Your task to perform on an android device: change alarm snooze length Image 0: 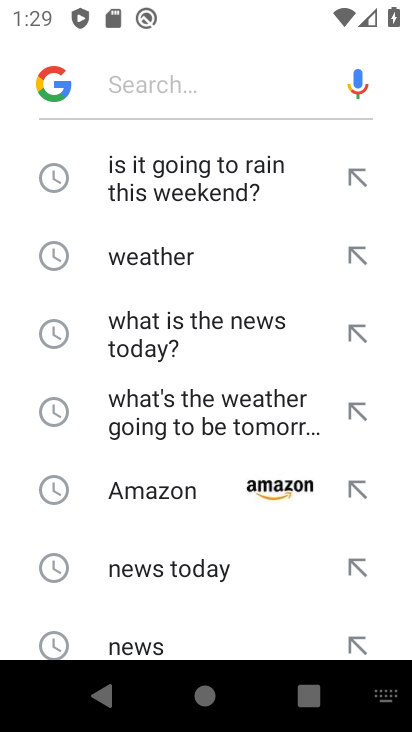
Step 0: press home button
Your task to perform on an android device: change alarm snooze length Image 1: 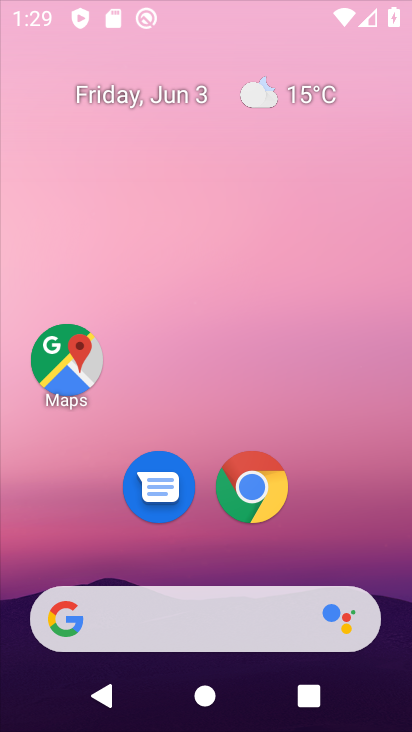
Step 1: drag from (333, 436) to (93, 36)
Your task to perform on an android device: change alarm snooze length Image 2: 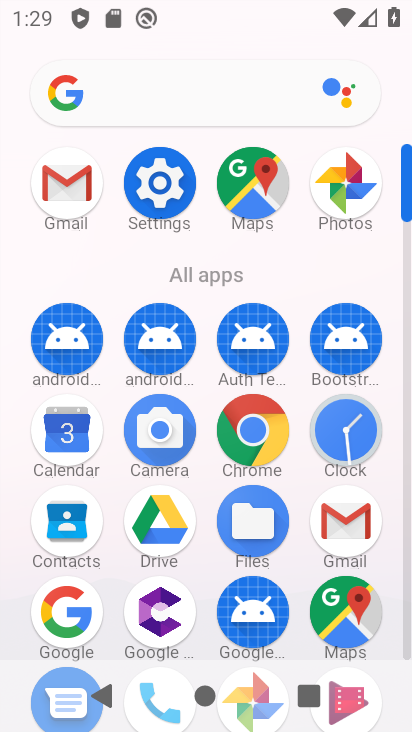
Step 2: click (361, 435)
Your task to perform on an android device: change alarm snooze length Image 3: 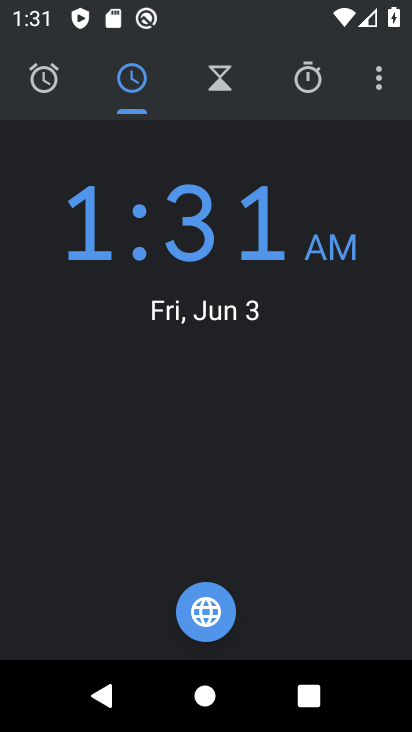
Step 3: click (379, 72)
Your task to perform on an android device: change alarm snooze length Image 4: 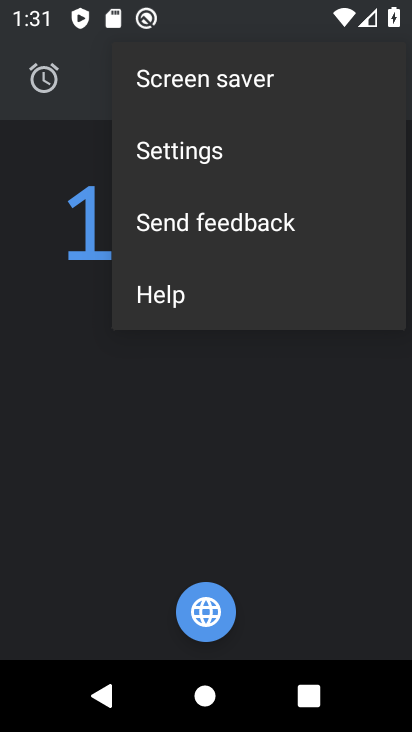
Step 4: click (218, 118)
Your task to perform on an android device: change alarm snooze length Image 5: 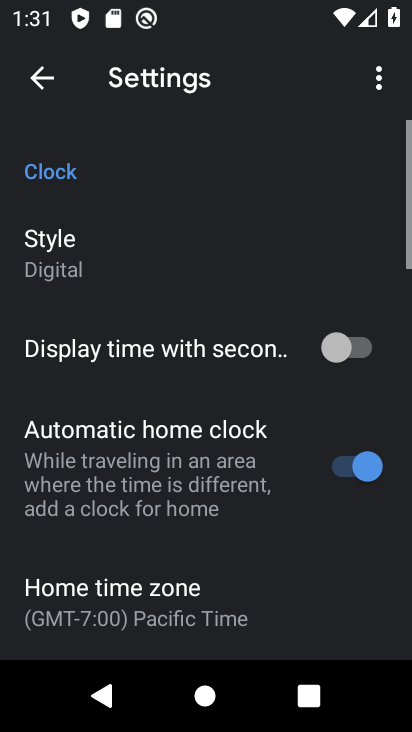
Step 5: drag from (232, 540) to (242, 145)
Your task to perform on an android device: change alarm snooze length Image 6: 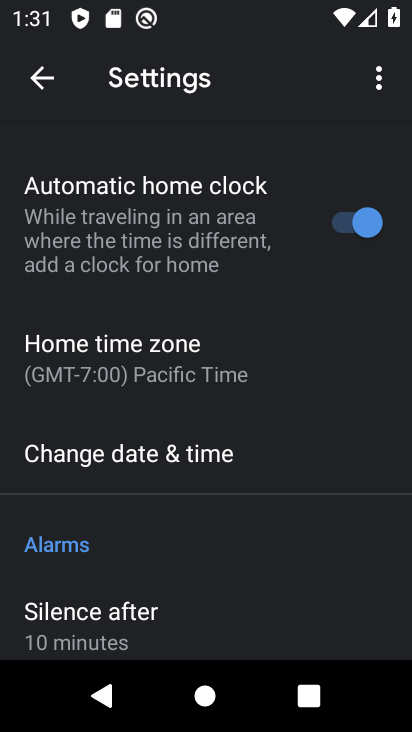
Step 6: drag from (215, 566) to (198, 99)
Your task to perform on an android device: change alarm snooze length Image 7: 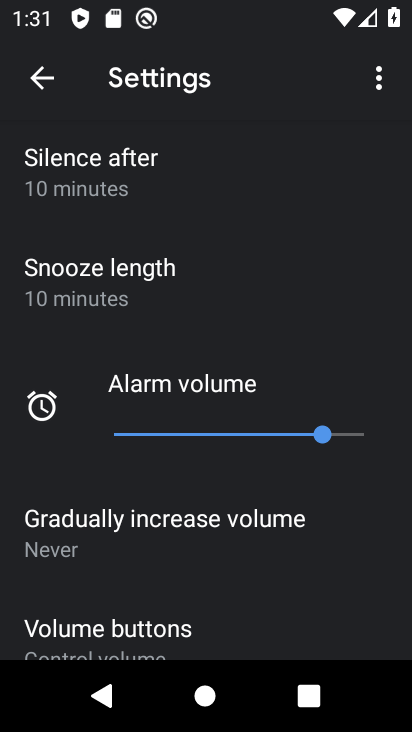
Step 7: click (137, 273)
Your task to perform on an android device: change alarm snooze length Image 8: 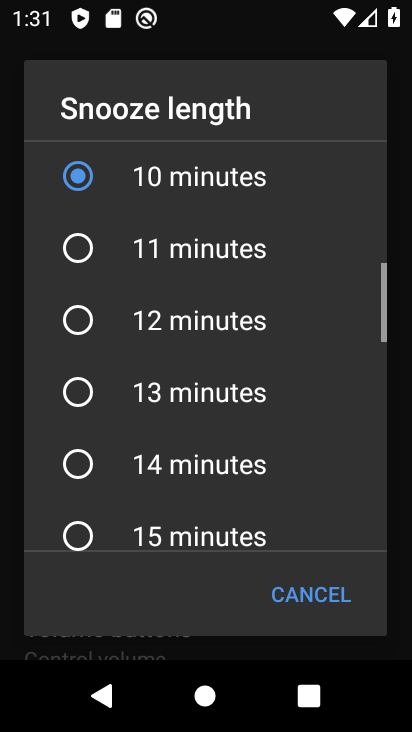
Step 8: click (117, 303)
Your task to perform on an android device: change alarm snooze length Image 9: 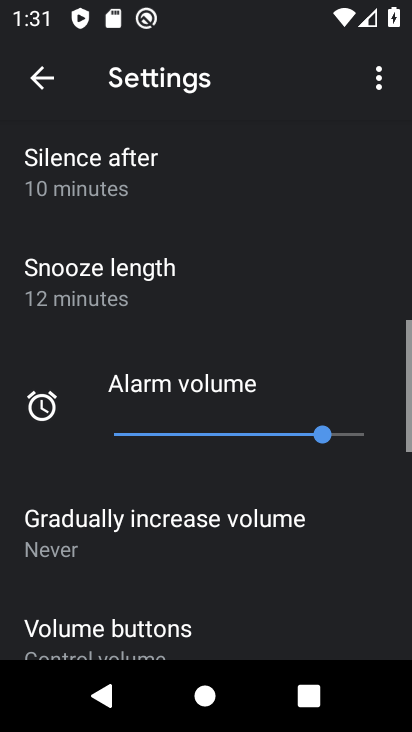
Step 9: task complete